Your task to perform on an android device: change your default location settings in chrome Image 0: 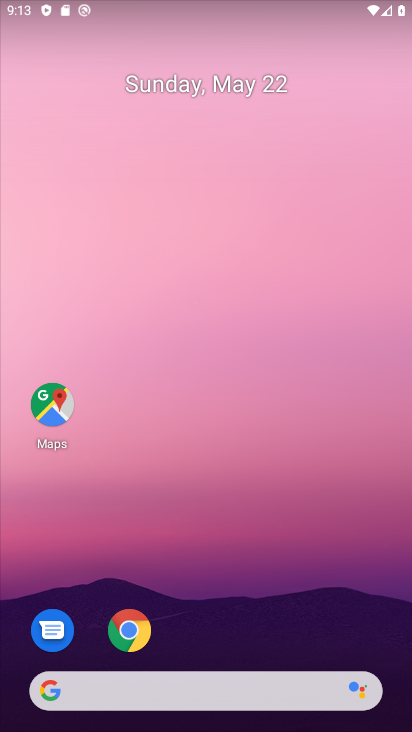
Step 0: click (136, 630)
Your task to perform on an android device: change your default location settings in chrome Image 1: 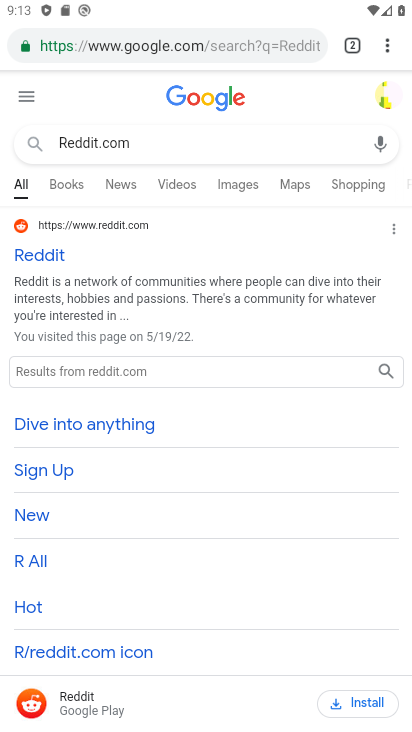
Step 1: click (385, 46)
Your task to perform on an android device: change your default location settings in chrome Image 2: 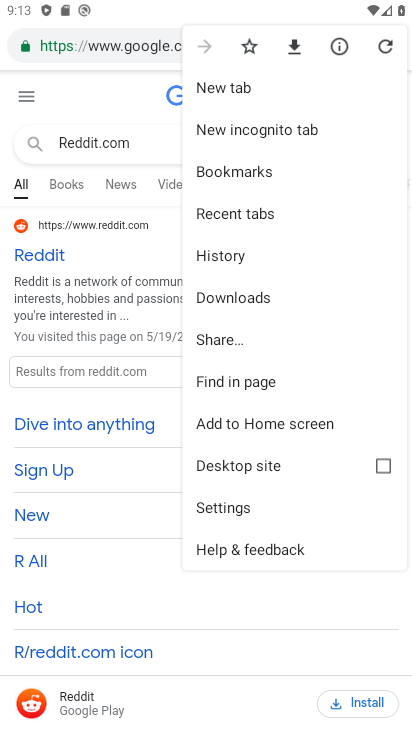
Step 2: click (221, 511)
Your task to perform on an android device: change your default location settings in chrome Image 3: 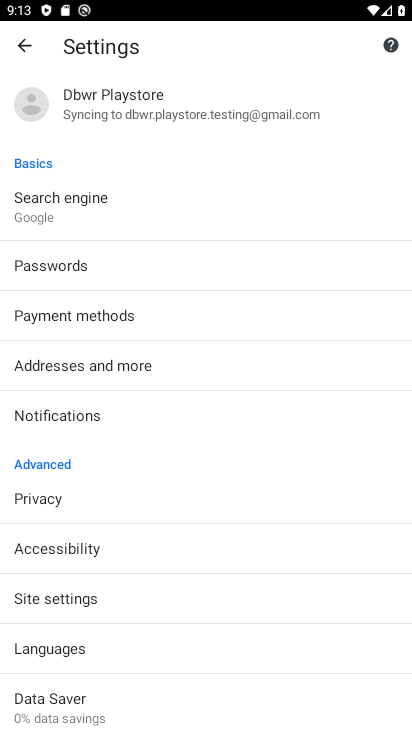
Step 3: click (42, 606)
Your task to perform on an android device: change your default location settings in chrome Image 4: 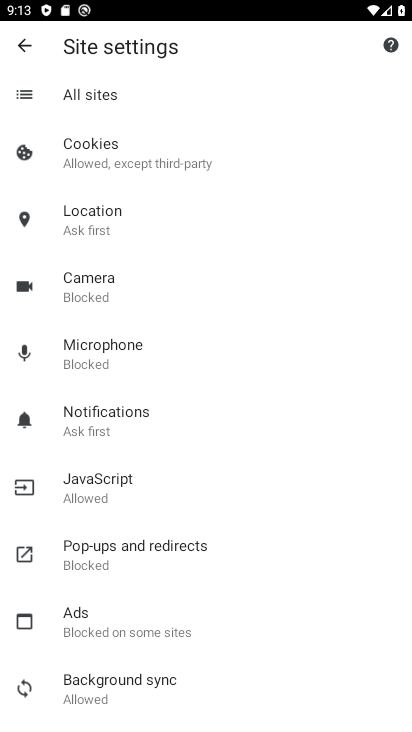
Step 4: click (79, 218)
Your task to perform on an android device: change your default location settings in chrome Image 5: 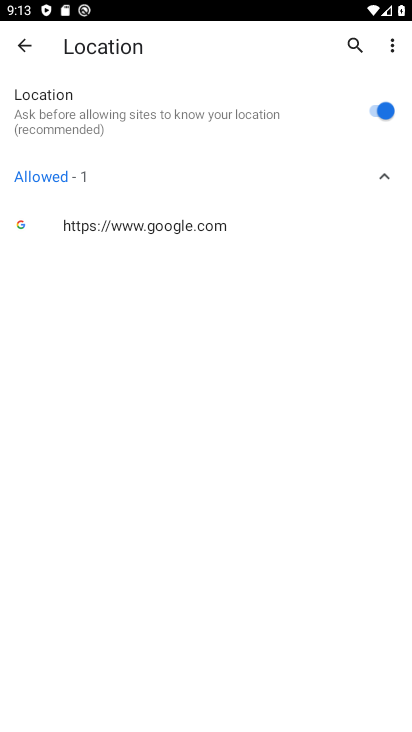
Step 5: task complete